Your task to perform on an android device: toggle notification dots Image 0: 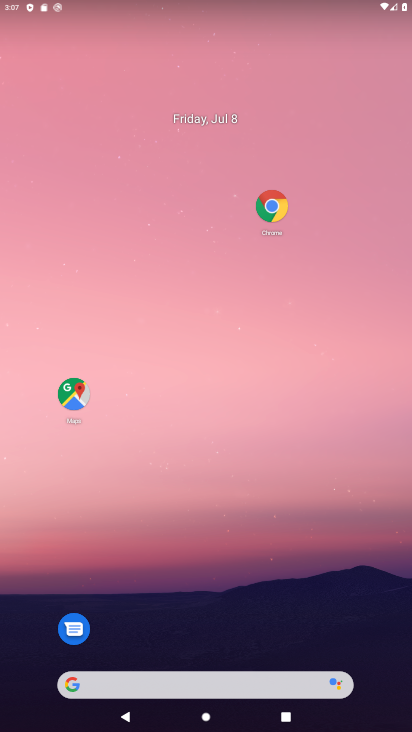
Step 0: drag from (178, 447) to (269, 7)
Your task to perform on an android device: toggle notification dots Image 1: 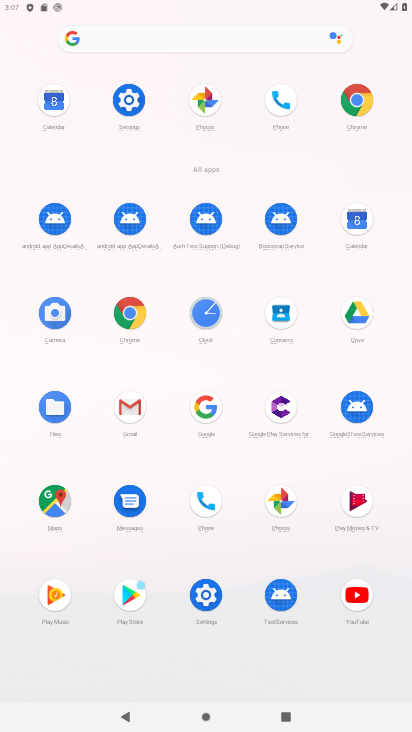
Step 1: click (206, 594)
Your task to perform on an android device: toggle notification dots Image 2: 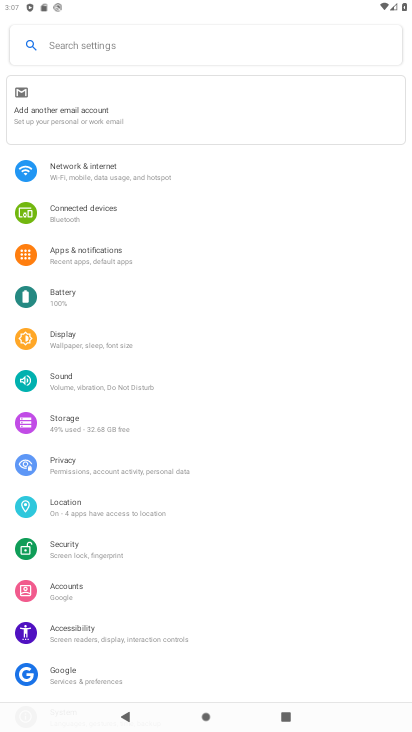
Step 2: drag from (162, 643) to (222, 115)
Your task to perform on an android device: toggle notification dots Image 3: 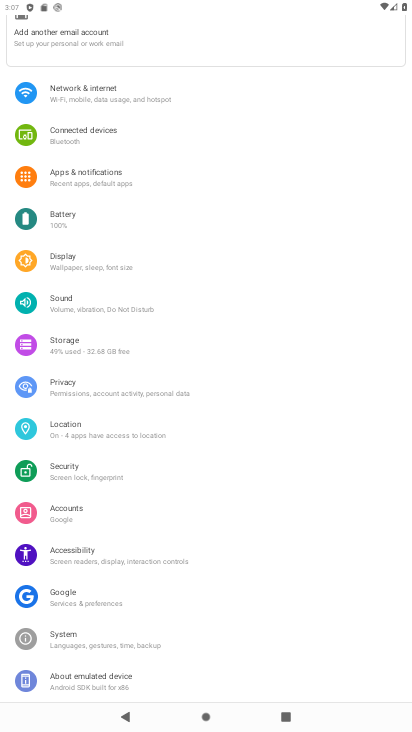
Step 3: click (122, 164)
Your task to perform on an android device: toggle notification dots Image 4: 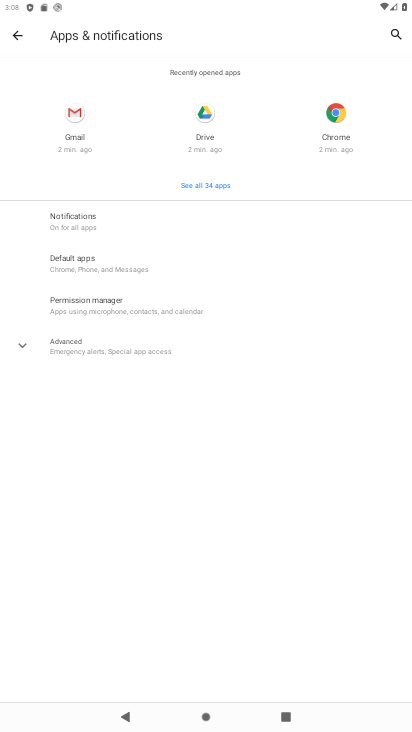
Step 4: click (96, 221)
Your task to perform on an android device: toggle notification dots Image 5: 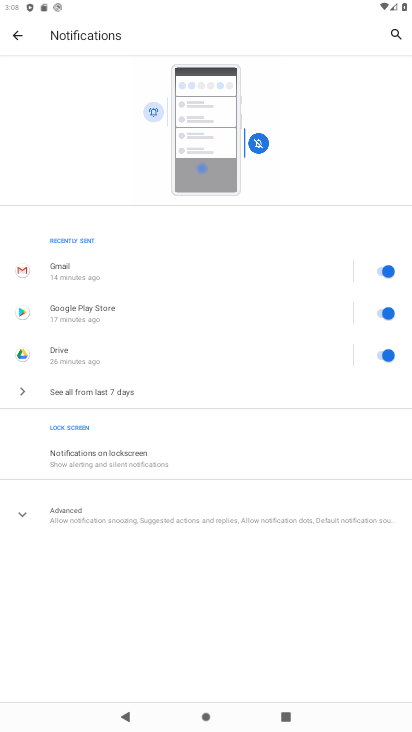
Step 5: click (58, 524)
Your task to perform on an android device: toggle notification dots Image 6: 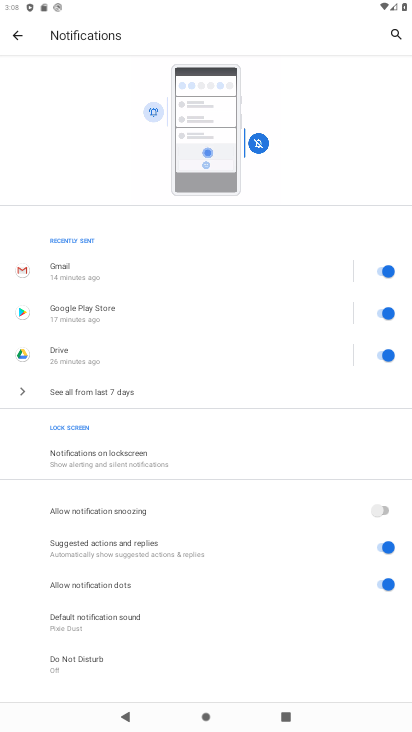
Step 6: drag from (182, 609) to (248, 448)
Your task to perform on an android device: toggle notification dots Image 7: 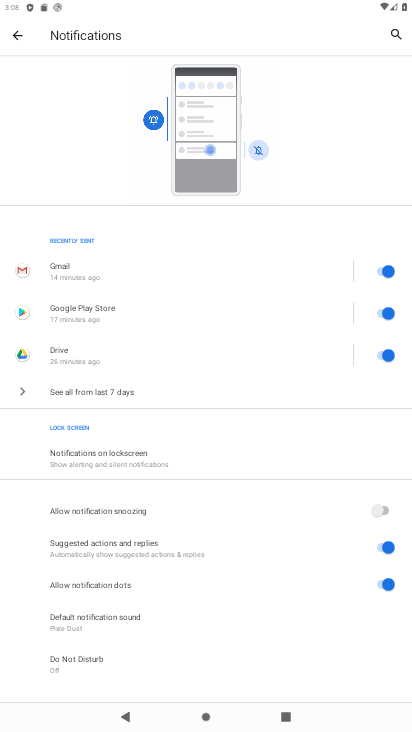
Step 7: drag from (197, 638) to (209, 310)
Your task to perform on an android device: toggle notification dots Image 8: 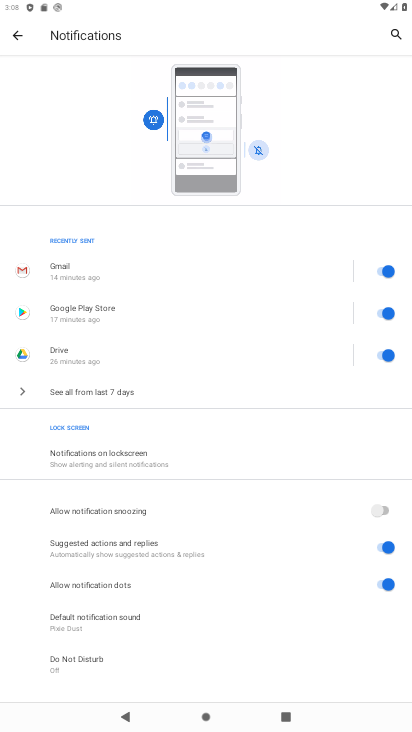
Step 8: drag from (208, 400) to (287, 731)
Your task to perform on an android device: toggle notification dots Image 9: 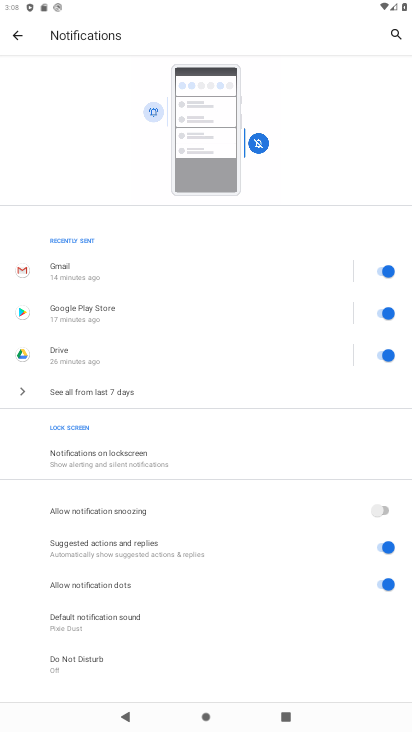
Step 9: drag from (238, 213) to (197, 719)
Your task to perform on an android device: toggle notification dots Image 10: 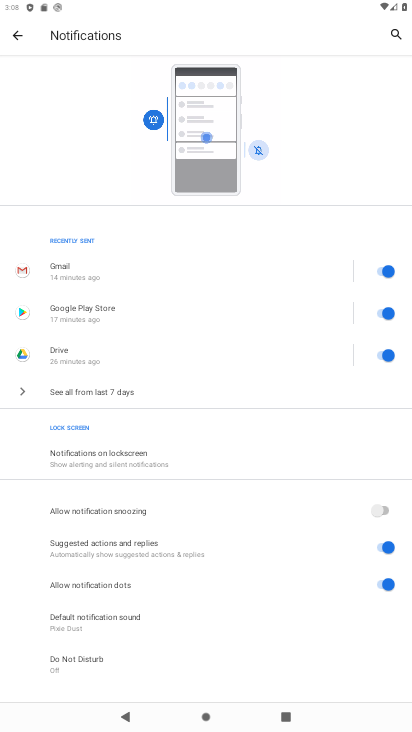
Step 10: drag from (327, 225) to (335, 182)
Your task to perform on an android device: toggle notification dots Image 11: 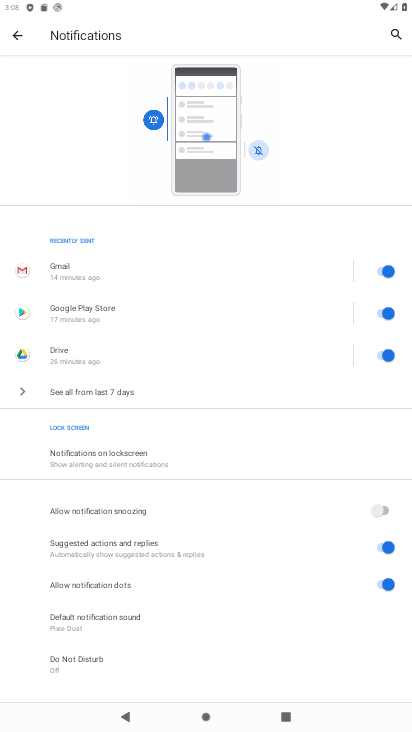
Step 11: drag from (333, 188) to (276, 727)
Your task to perform on an android device: toggle notification dots Image 12: 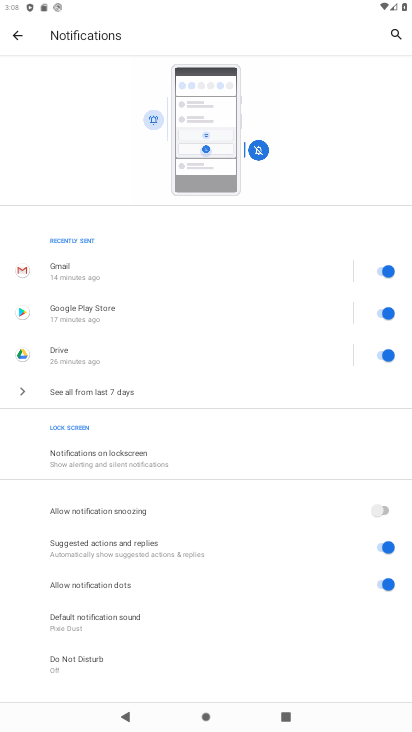
Step 12: drag from (217, 299) to (346, 730)
Your task to perform on an android device: toggle notification dots Image 13: 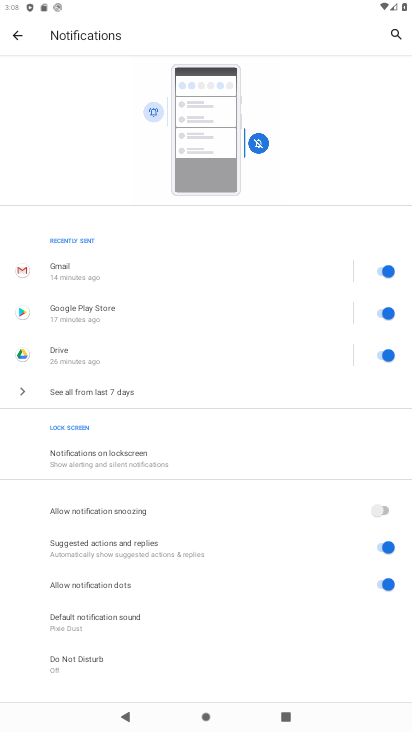
Step 13: drag from (210, 293) to (273, 727)
Your task to perform on an android device: toggle notification dots Image 14: 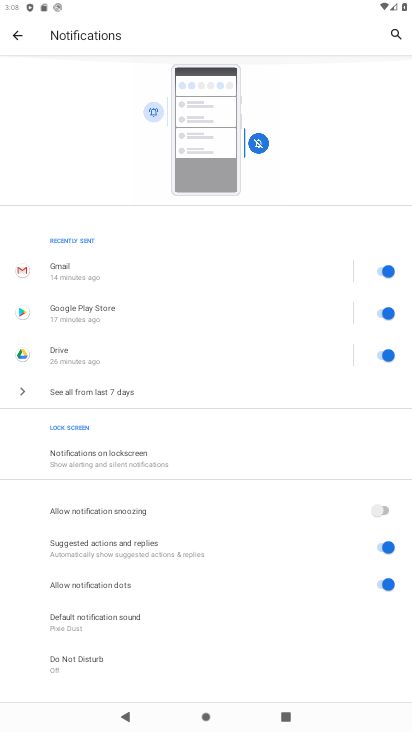
Step 14: drag from (288, 296) to (46, 608)
Your task to perform on an android device: toggle notification dots Image 15: 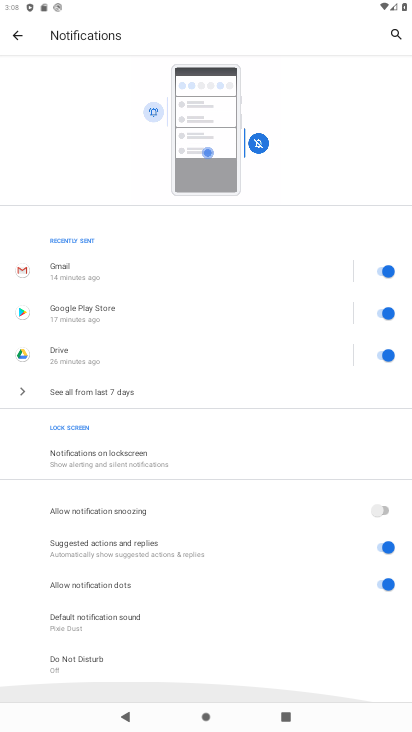
Step 15: drag from (184, 623) to (208, 354)
Your task to perform on an android device: toggle notification dots Image 16: 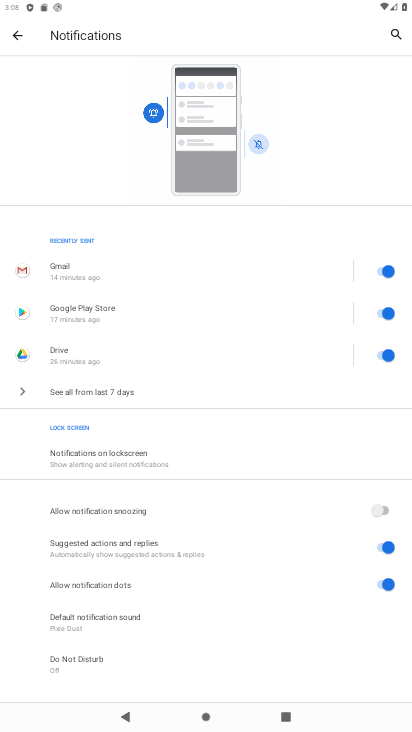
Step 16: drag from (176, 602) to (221, 451)
Your task to perform on an android device: toggle notification dots Image 17: 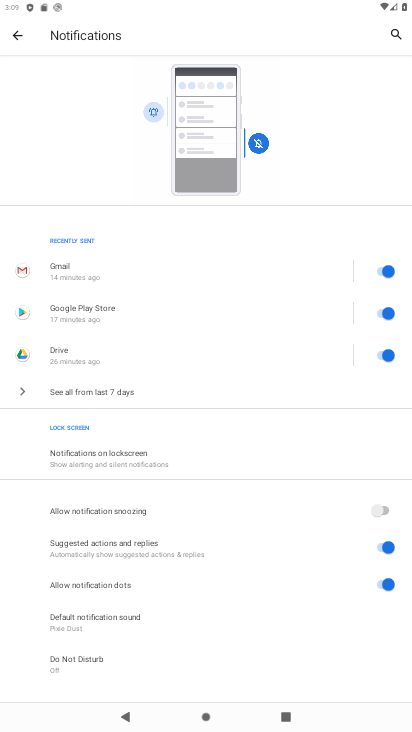
Step 17: drag from (233, 613) to (244, 320)
Your task to perform on an android device: toggle notification dots Image 18: 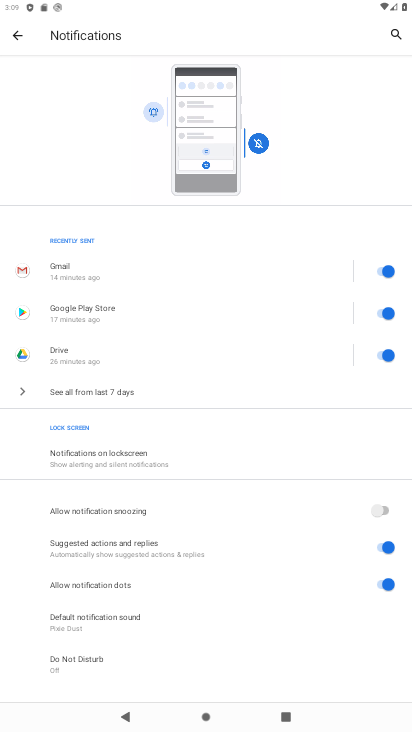
Step 18: click (389, 585)
Your task to perform on an android device: toggle notification dots Image 19: 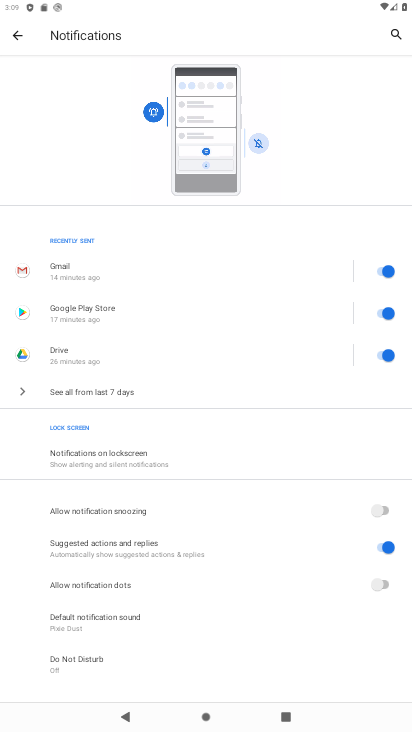
Step 19: task complete